Your task to perform on an android device: change alarm snooze length Image 0: 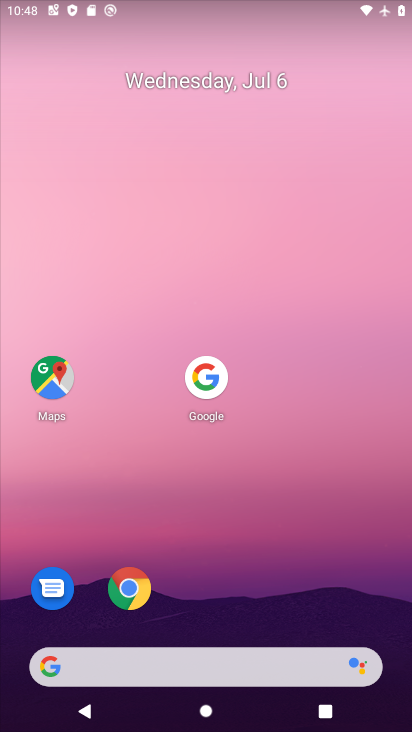
Step 0: drag from (230, 635) to (321, 99)
Your task to perform on an android device: change alarm snooze length Image 1: 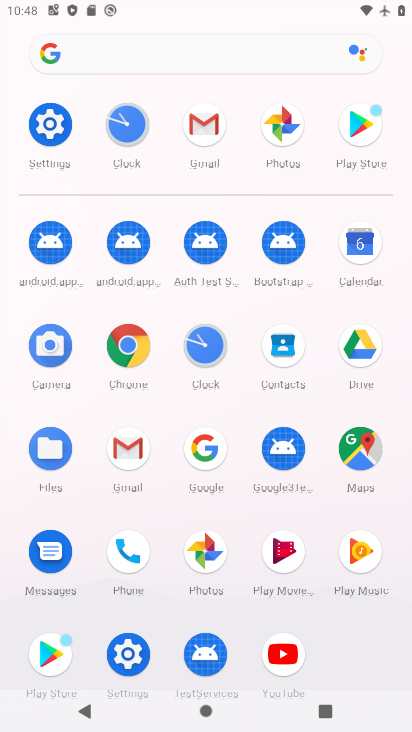
Step 1: click (205, 352)
Your task to perform on an android device: change alarm snooze length Image 2: 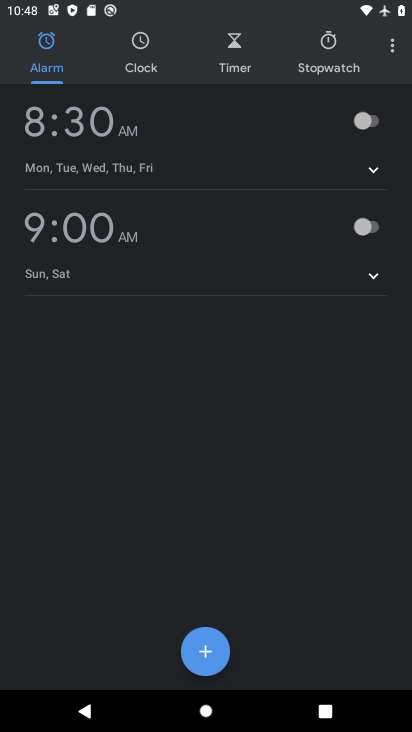
Step 2: click (394, 47)
Your task to perform on an android device: change alarm snooze length Image 3: 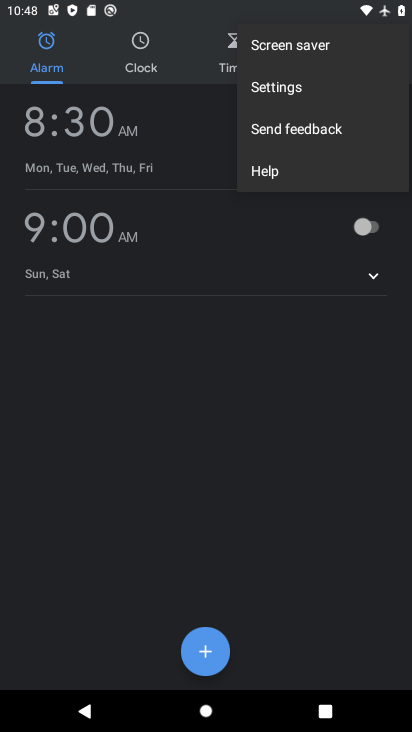
Step 3: click (294, 86)
Your task to perform on an android device: change alarm snooze length Image 4: 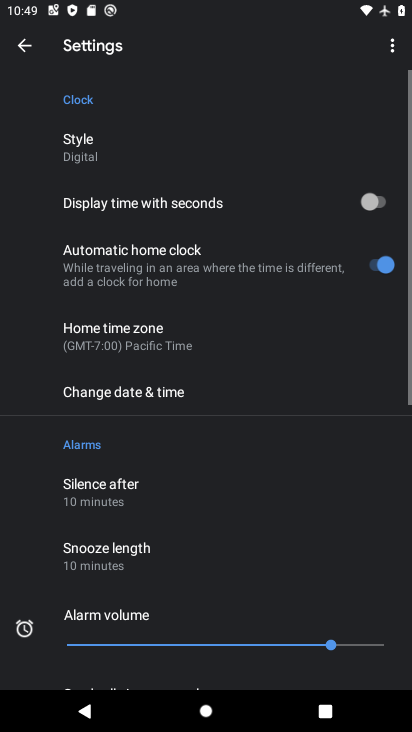
Step 4: drag from (176, 536) to (265, 329)
Your task to perform on an android device: change alarm snooze length Image 5: 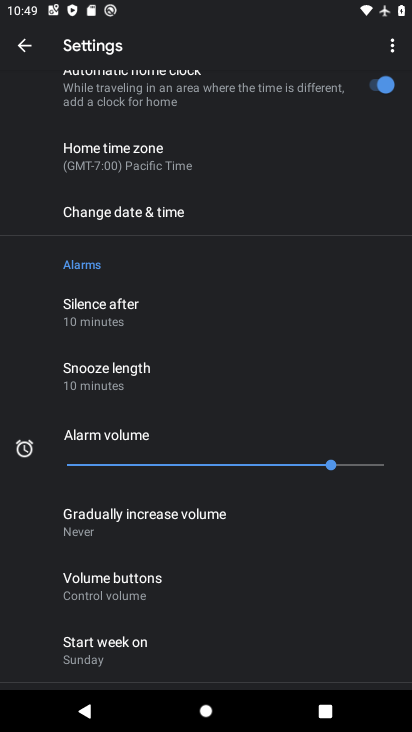
Step 5: click (126, 362)
Your task to perform on an android device: change alarm snooze length Image 6: 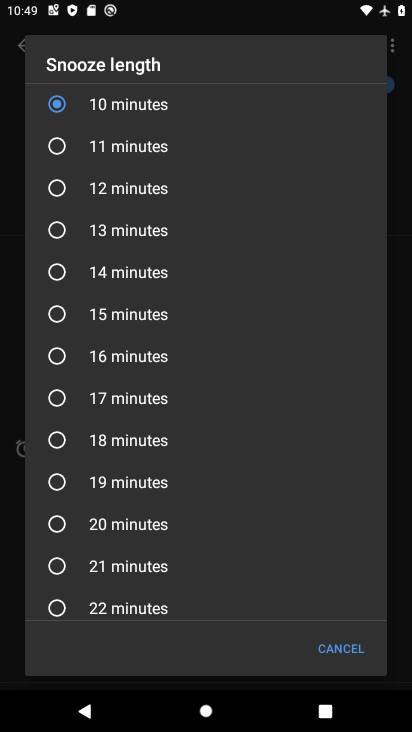
Step 6: click (128, 225)
Your task to perform on an android device: change alarm snooze length Image 7: 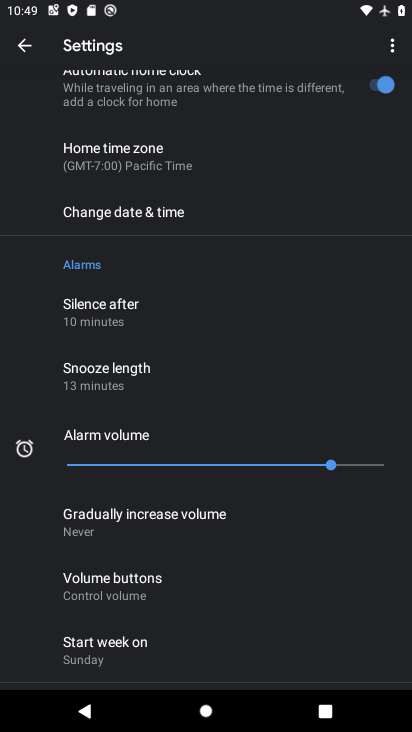
Step 7: task complete